Your task to perform on an android device: Go to privacy settings Image 0: 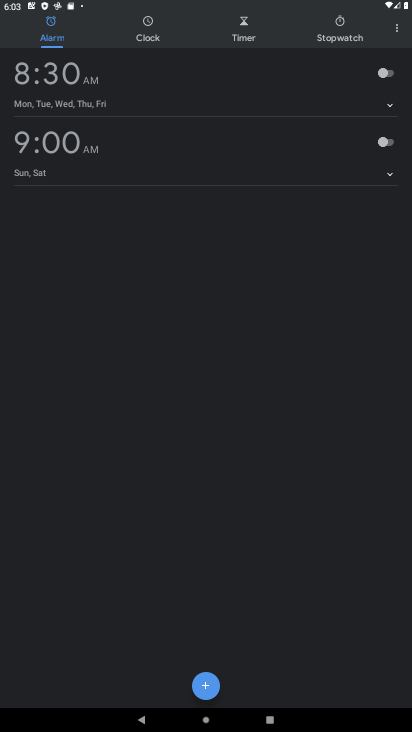
Step 0: press home button
Your task to perform on an android device: Go to privacy settings Image 1: 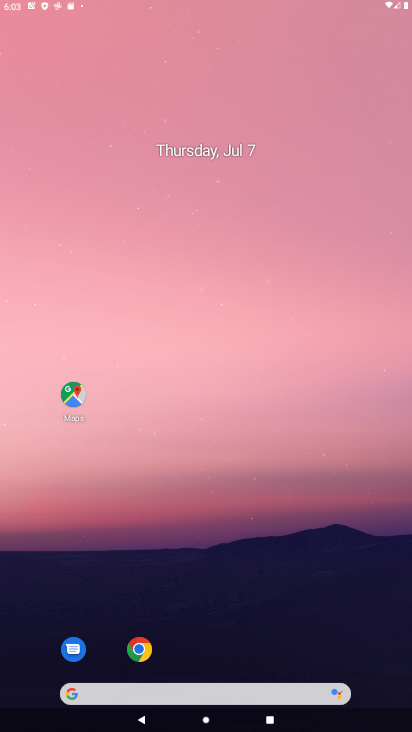
Step 1: drag from (340, 679) to (193, 30)
Your task to perform on an android device: Go to privacy settings Image 2: 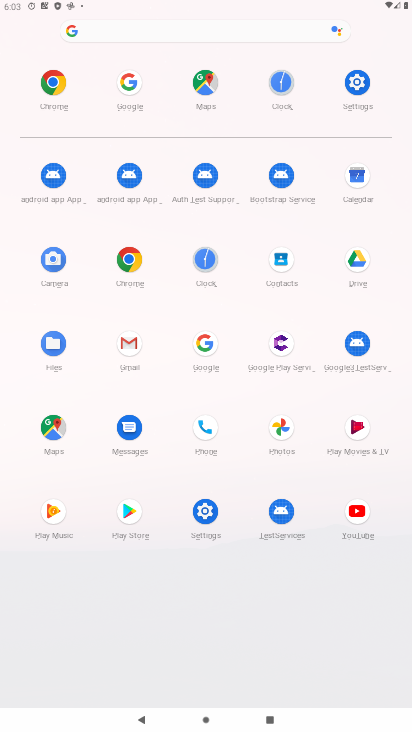
Step 2: click (360, 70)
Your task to perform on an android device: Go to privacy settings Image 3: 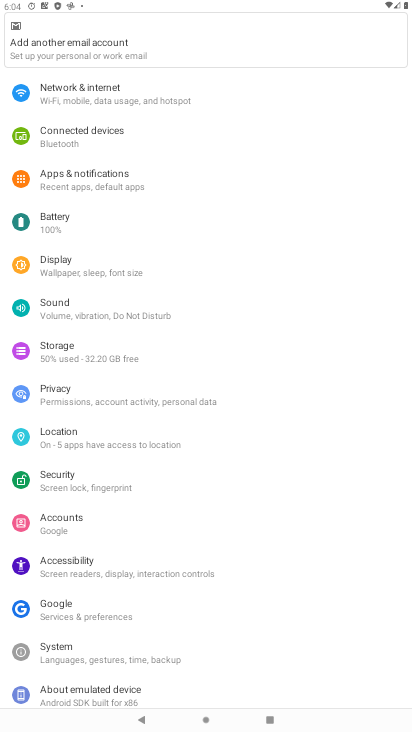
Step 3: click (79, 398)
Your task to perform on an android device: Go to privacy settings Image 4: 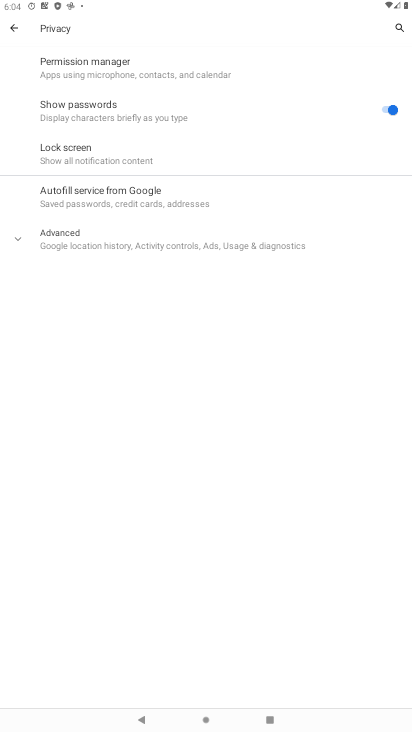
Step 4: task complete